Your task to perform on an android device: turn on javascript in the chrome app Image 0: 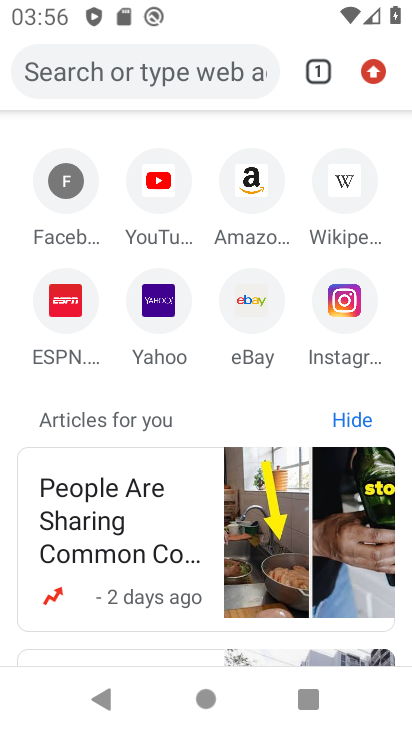
Step 0: press home button
Your task to perform on an android device: turn on javascript in the chrome app Image 1: 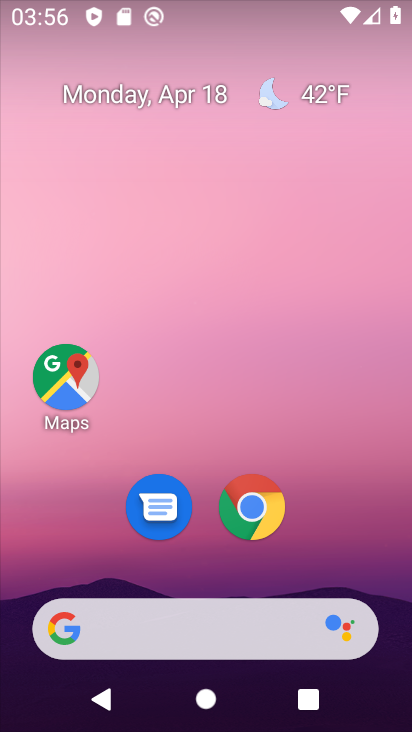
Step 1: click (263, 505)
Your task to perform on an android device: turn on javascript in the chrome app Image 2: 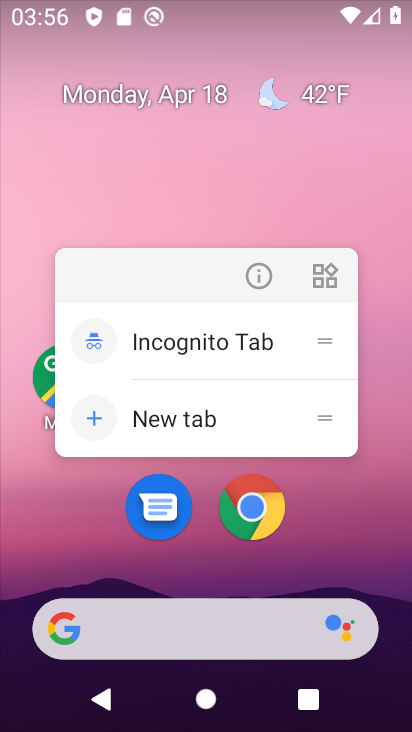
Step 2: click (251, 516)
Your task to perform on an android device: turn on javascript in the chrome app Image 3: 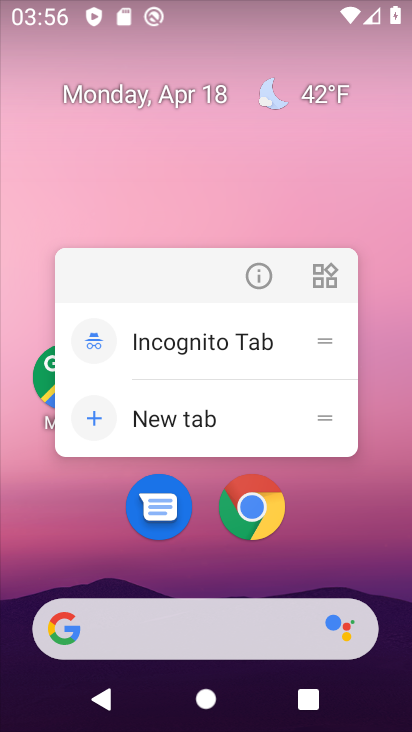
Step 3: drag from (183, 518) to (295, 97)
Your task to perform on an android device: turn on javascript in the chrome app Image 4: 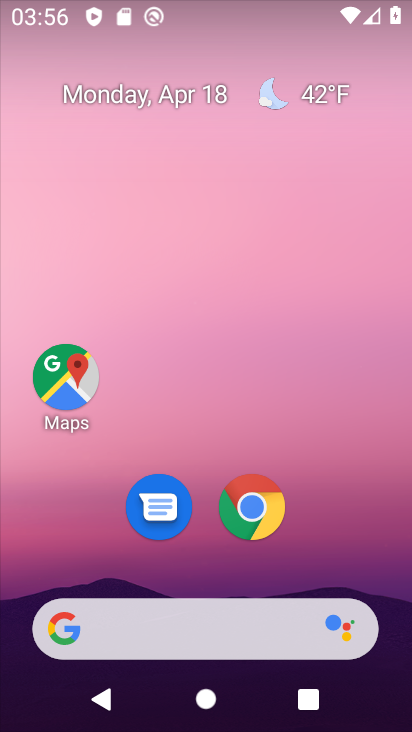
Step 4: drag from (198, 556) to (259, 159)
Your task to perform on an android device: turn on javascript in the chrome app Image 5: 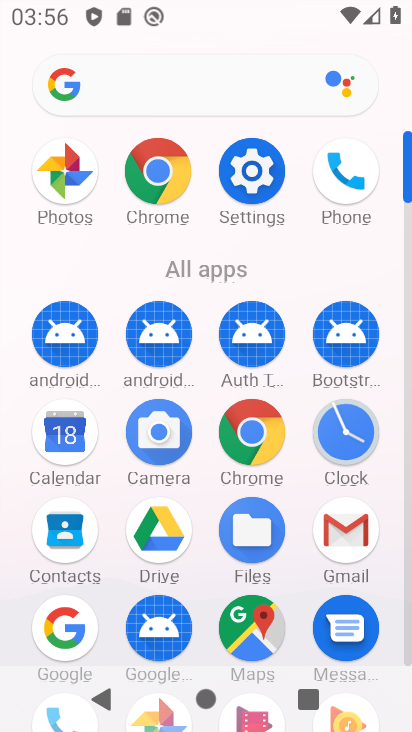
Step 5: click (166, 178)
Your task to perform on an android device: turn on javascript in the chrome app Image 6: 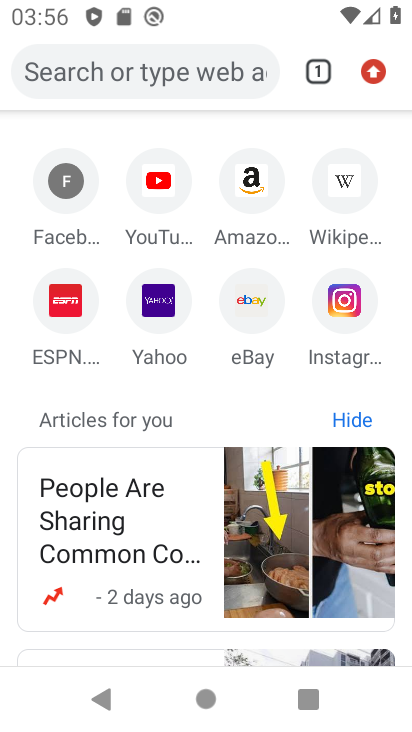
Step 6: click (379, 70)
Your task to perform on an android device: turn on javascript in the chrome app Image 7: 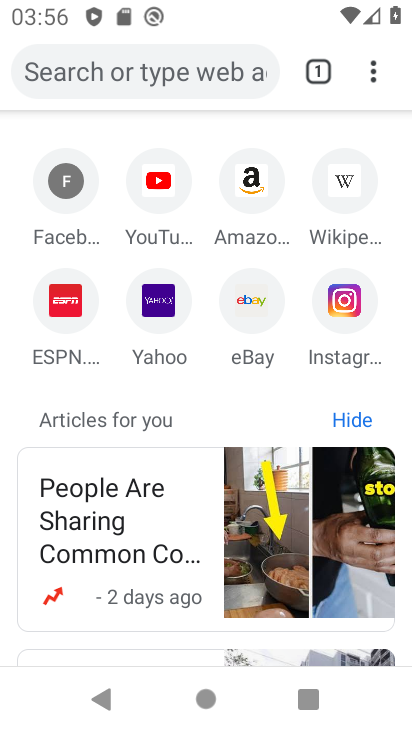
Step 7: click (373, 75)
Your task to perform on an android device: turn on javascript in the chrome app Image 8: 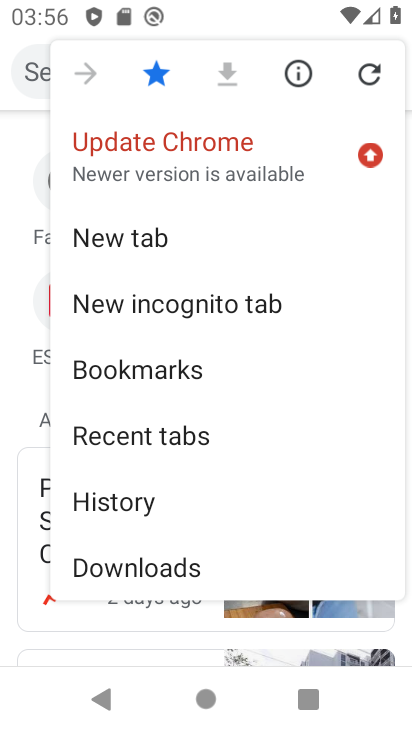
Step 8: drag from (154, 454) to (234, 103)
Your task to perform on an android device: turn on javascript in the chrome app Image 9: 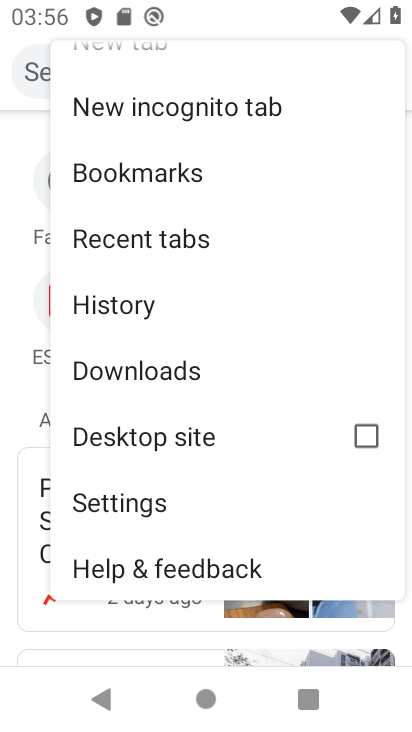
Step 9: click (139, 498)
Your task to perform on an android device: turn on javascript in the chrome app Image 10: 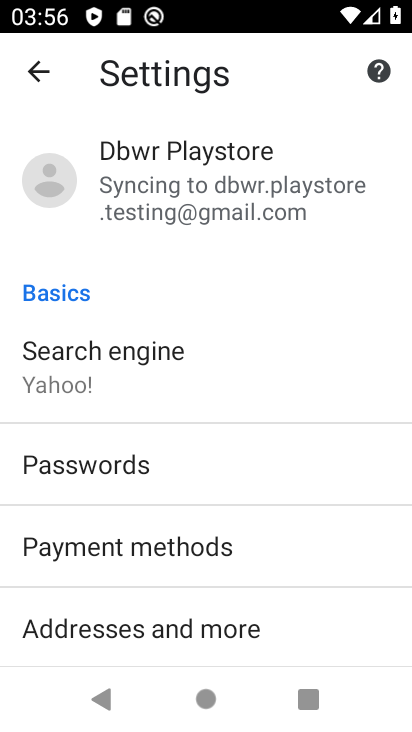
Step 10: drag from (160, 461) to (217, 216)
Your task to perform on an android device: turn on javascript in the chrome app Image 11: 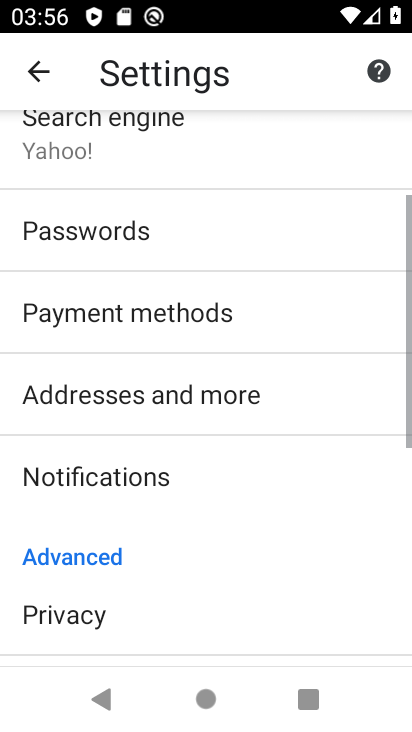
Step 11: drag from (239, 550) to (290, 248)
Your task to perform on an android device: turn on javascript in the chrome app Image 12: 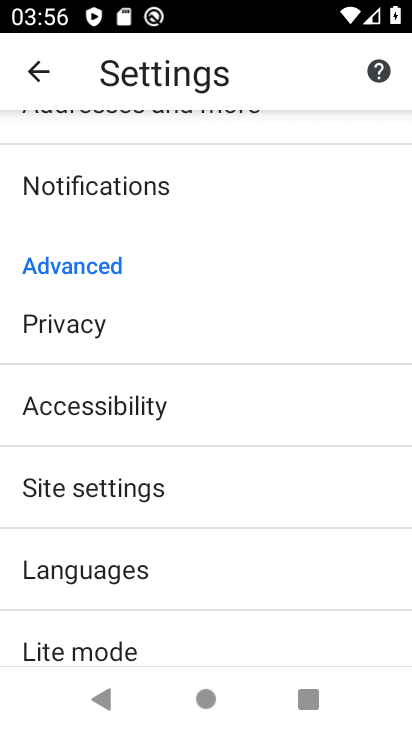
Step 12: click (126, 498)
Your task to perform on an android device: turn on javascript in the chrome app Image 13: 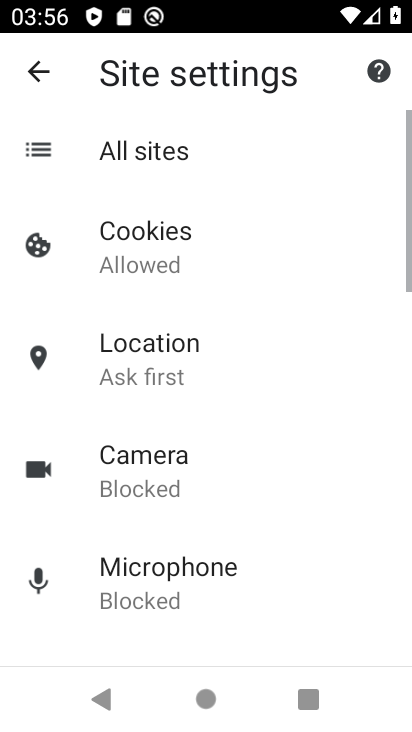
Step 13: drag from (224, 508) to (289, 228)
Your task to perform on an android device: turn on javascript in the chrome app Image 14: 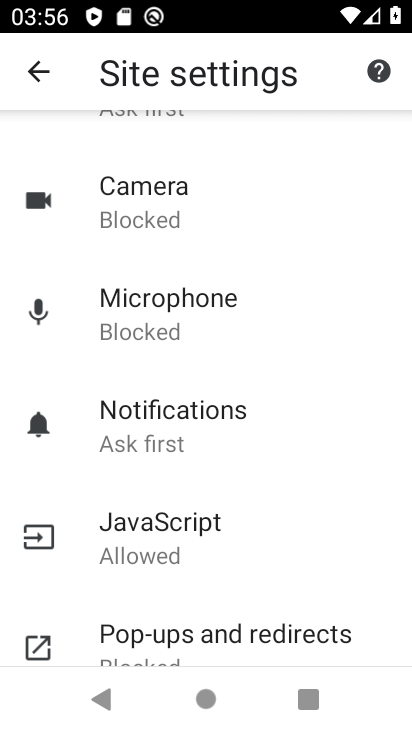
Step 14: click (183, 524)
Your task to perform on an android device: turn on javascript in the chrome app Image 15: 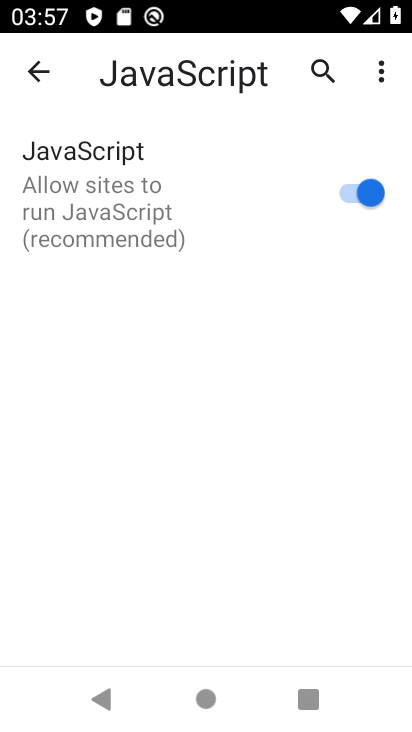
Step 15: task complete